Your task to perform on an android device: turn on location history Image 0: 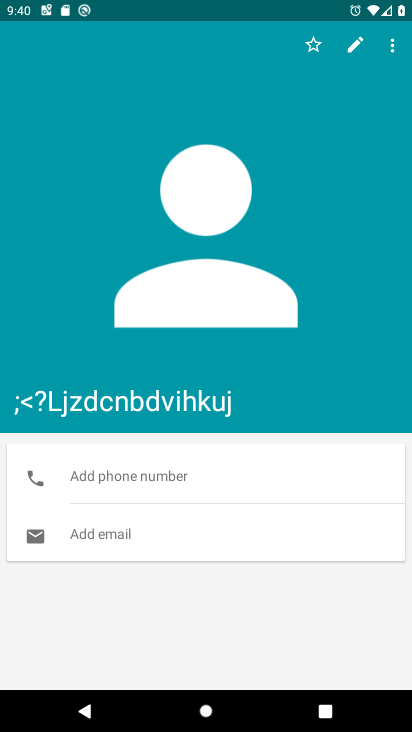
Step 0: press home button
Your task to perform on an android device: turn on location history Image 1: 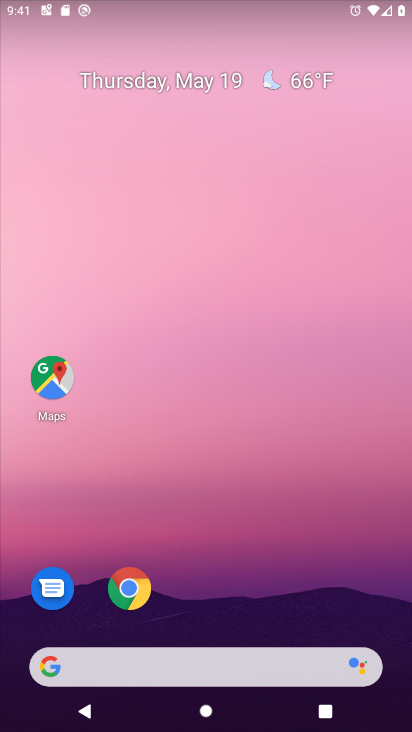
Step 1: drag from (364, 623) to (299, 159)
Your task to perform on an android device: turn on location history Image 2: 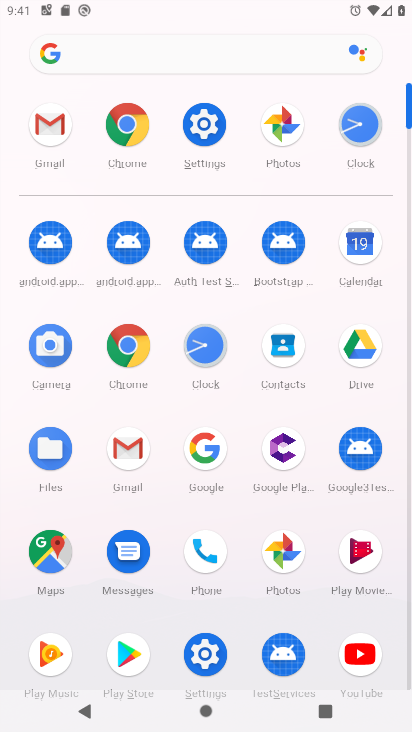
Step 2: click (196, 142)
Your task to perform on an android device: turn on location history Image 3: 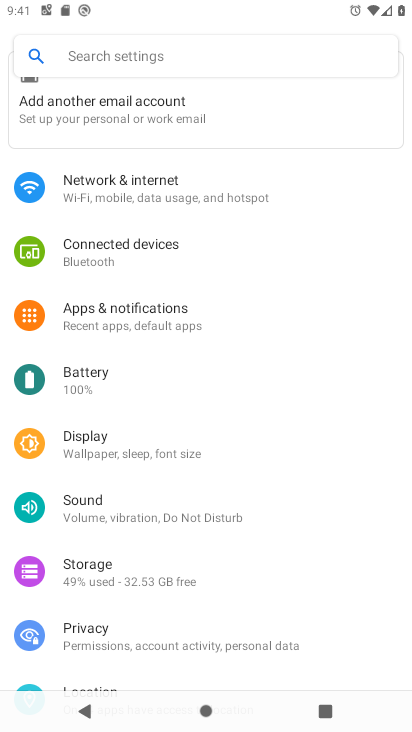
Step 3: drag from (360, 603) to (332, 370)
Your task to perform on an android device: turn on location history Image 4: 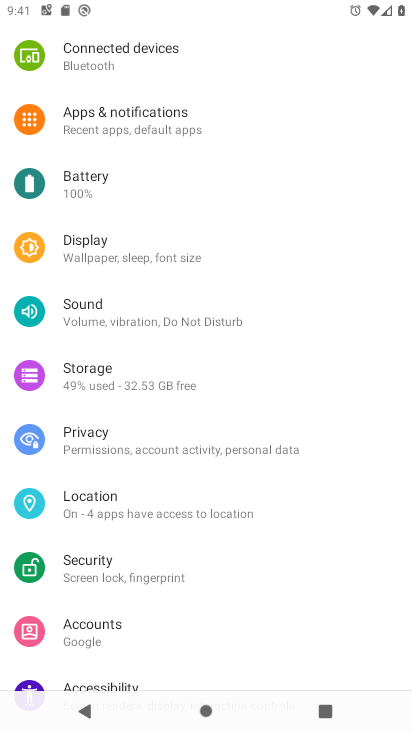
Step 4: drag from (351, 572) to (341, 395)
Your task to perform on an android device: turn on location history Image 5: 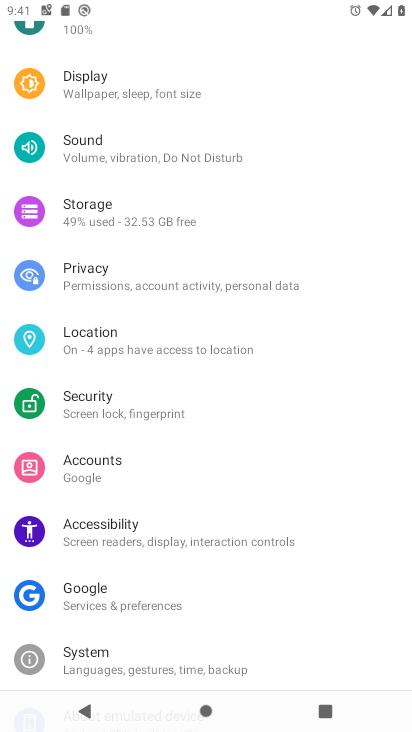
Step 5: drag from (335, 599) to (318, 425)
Your task to perform on an android device: turn on location history Image 6: 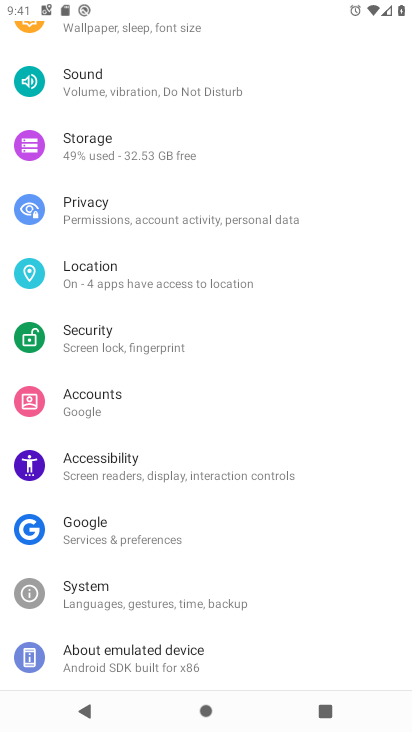
Step 6: drag from (331, 482) to (324, 569)
Your task to perform on an android device: turn on location history Image 7: 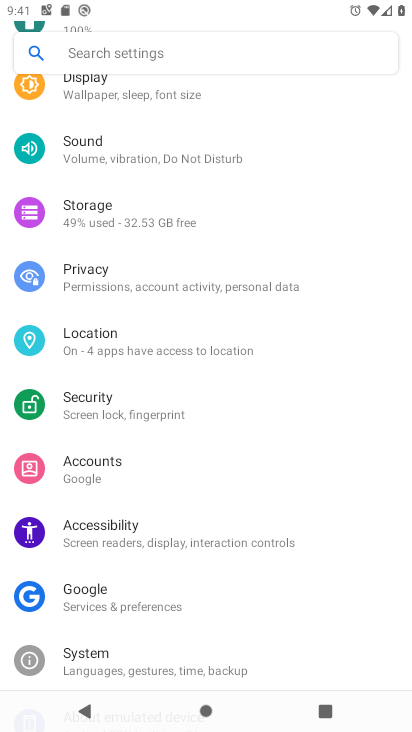
Step 7: drag from (324, 438) to (313, 510)
Your task to perform on an android device: turn on location history Image 8: 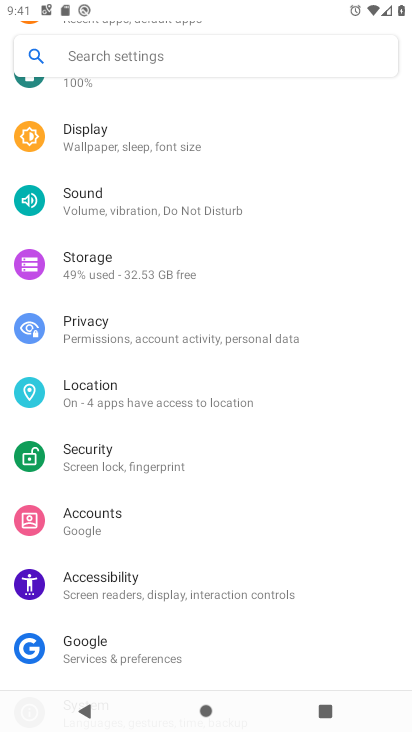
Step 8: drag from (327, 392) to (315, 496)
Your task to perform on an android device: turn on location history Image 9: 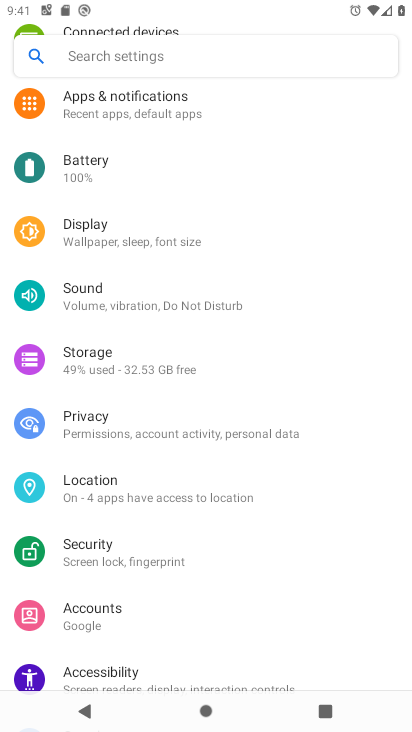
Step 9: drag from (330, 355) to (331, 396)
Your task to perform on an android device: turn on location history Image 10: 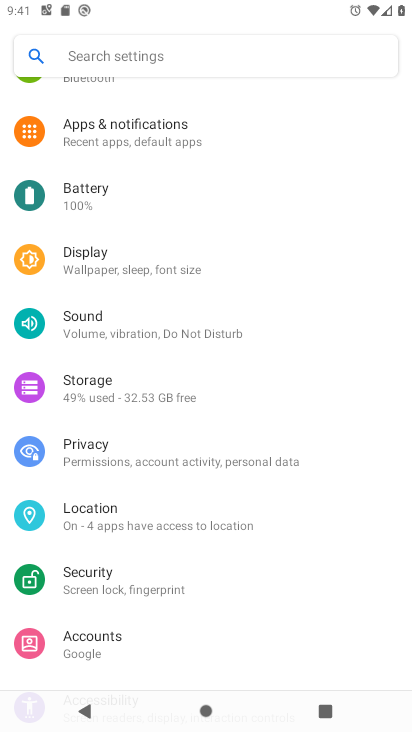
Step 10: click (266, 536)
Your task to perform on an android device: turn on location history Image 11: 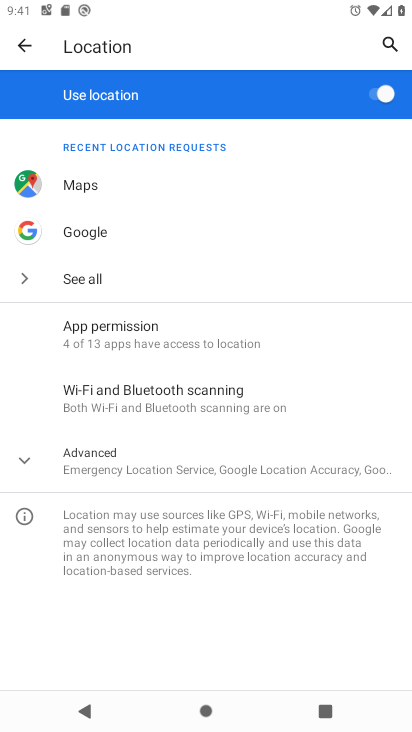
Step 11: click (255, 475)
Your task to perform on an android device: turn on location history Image 12: 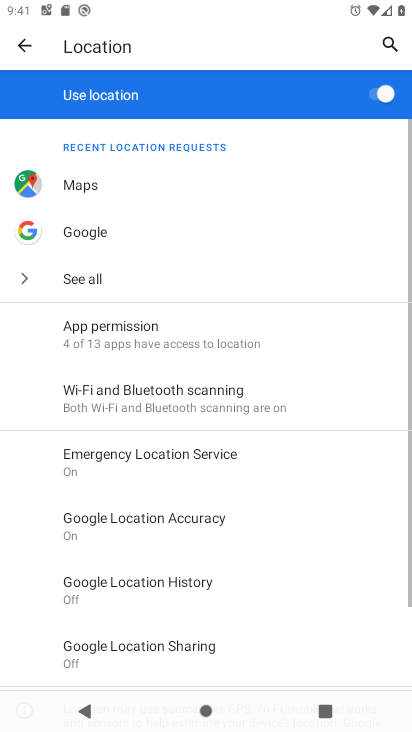
Step 12: drag from (273, 578) to (280, 496)
Your task to perform on an android device: turn on location history Image 13: 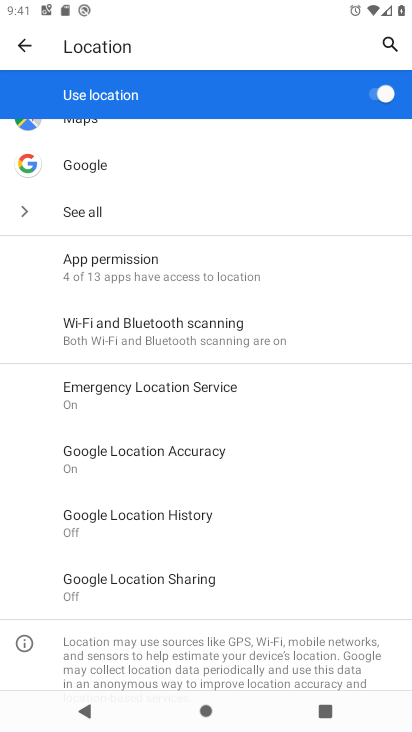
Step 13: click (198, 531)
Your task to perform on an android device: turn on location history Image 14: 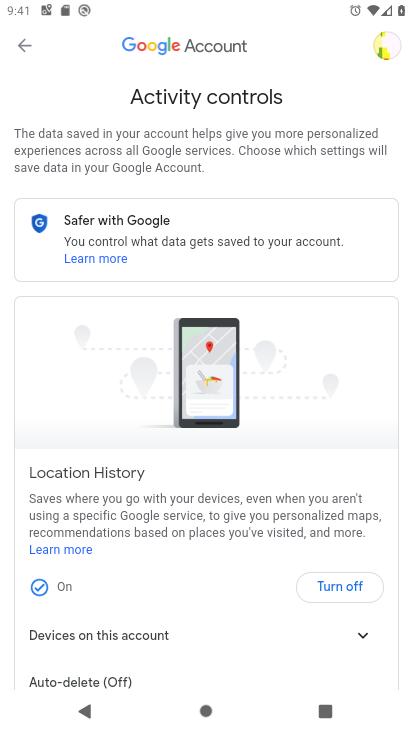
Step 14: task complete